Your task to perform on an android device: turn on priority inbox in the gmail app Image 0: 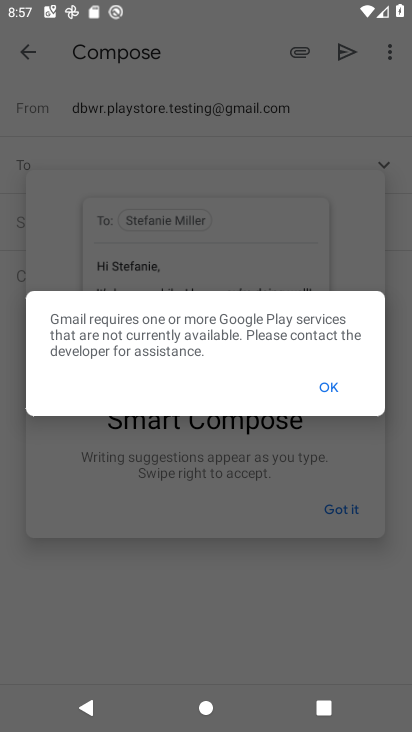
Step 0: press home button
Your task to perform on an android device: turn on priority inbox in the gmail app Image 1: 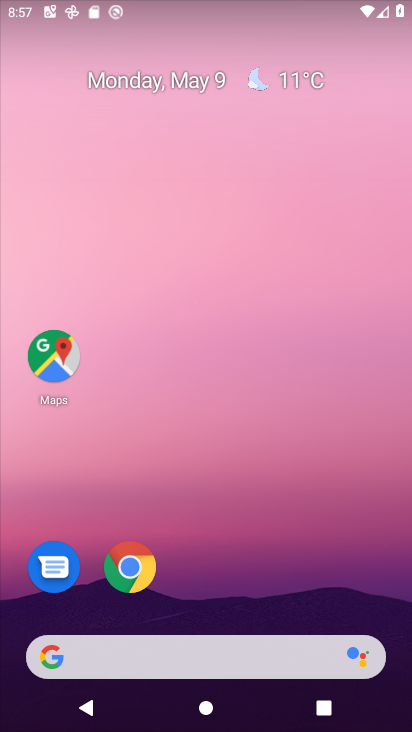
Step 1: drag from (224, 539) to (260, 45)
Your task to perform on an android device: turn on priority inbox in the gmail app Image 2: 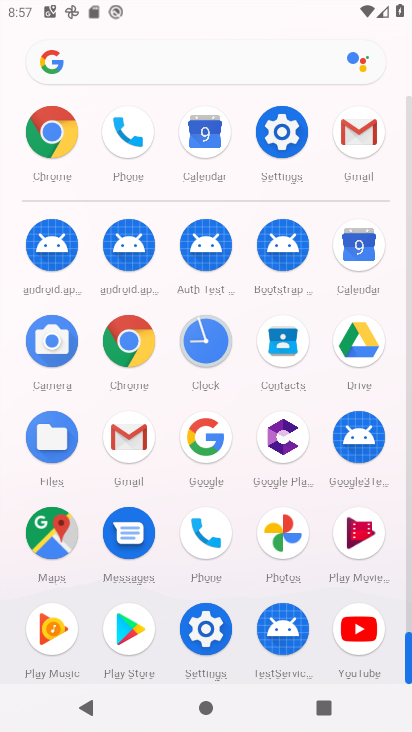
Step 2: click (359, 136)
Your task to perform on an android device: turn on priority inbox in the gmail app Image 3: 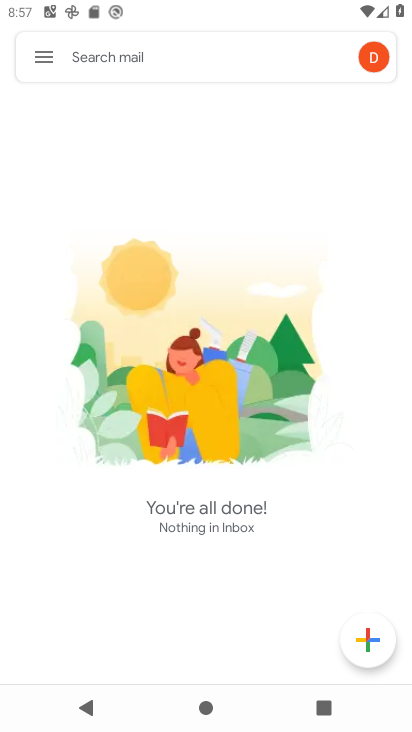
Step 3: click (46, 55)
Your task to perform on an android device: turn on priority inbox in the gmail app Image 4: 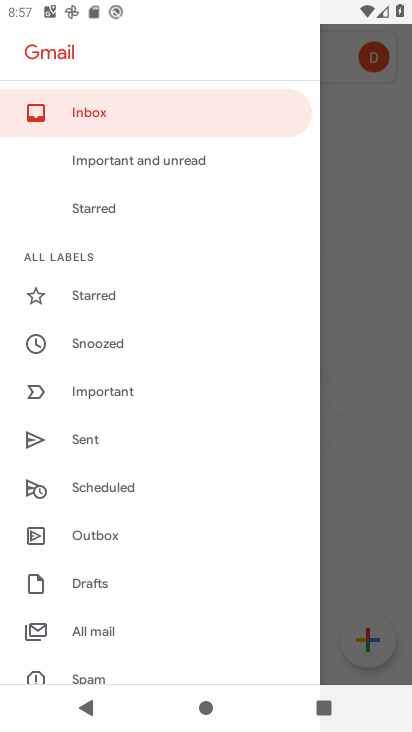
Step 4: drag from (193, 583) to (216, 92)
Your task to perform on an android device: turn on priority inbox in the gmail app Image 5: 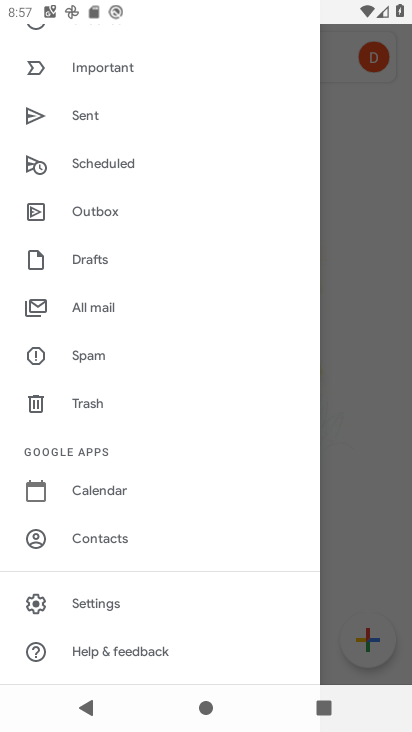
Step 5: click (138, 605)
Your task to perform on an android device: turn on priority inbox in the gmail app Image 6: 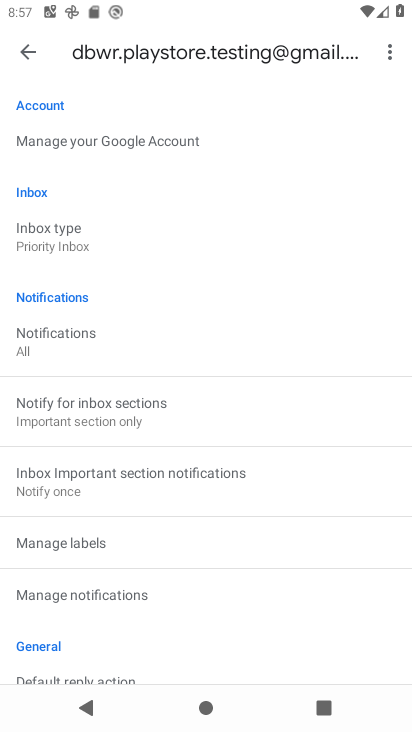
Step 6: task complete